Your task to perform on an android device: turn smart compose on in the gmail app Image 0: 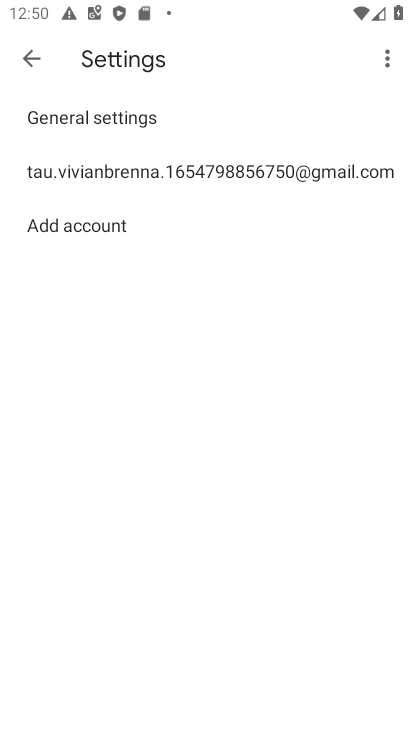
Step 0: press home button
Your task to perform on an android device: turn smart compose on in the gmail app Image 1: 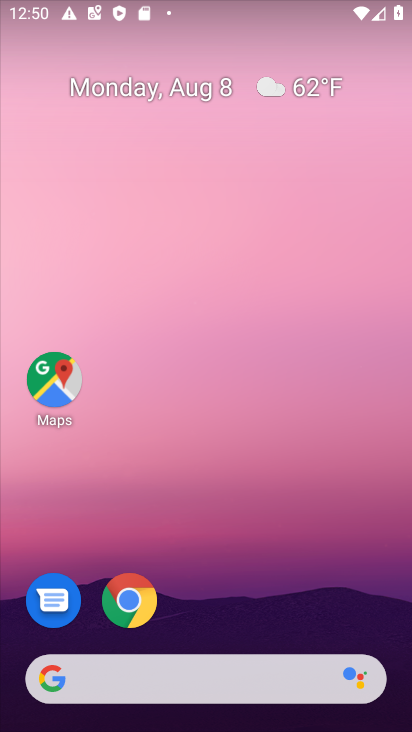
Step 1: drag from (223, 618) to (214, 57)
Your task to perform on an android device: turn smart compose on in the gmail app Image 2: 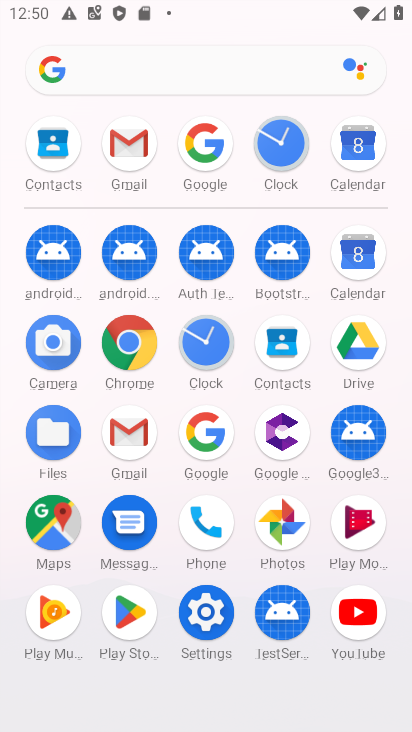
Step 2: click (127, 171)
Your task to perform on an android device: turn smart compose on in the gmail app Image 3: 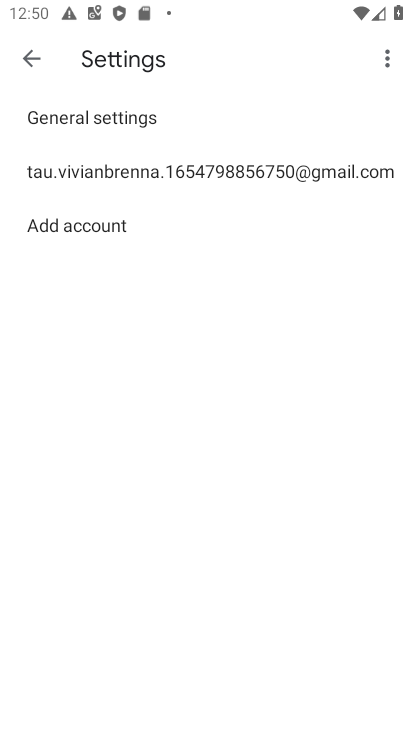
Step 3: click (25, 54)
Your task to perform on an android device: turn smart compose on in the gmail app Image 4: 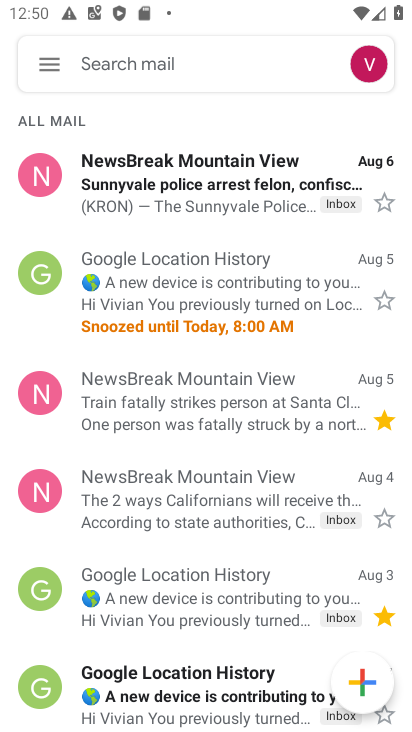
Step 4: click (53, 67)
Your task to perform on an android device: turn smart compose on in the gmail app Image 5: 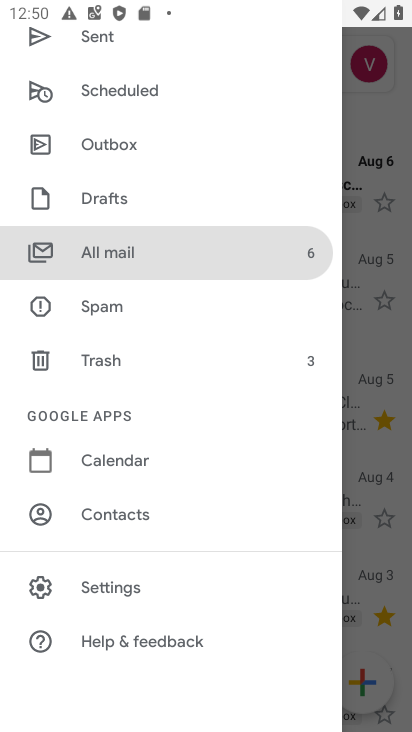
Step 5: click (174, 589)
Your task to perform on an android device: turn smart compose on in the gmail app Image 6: 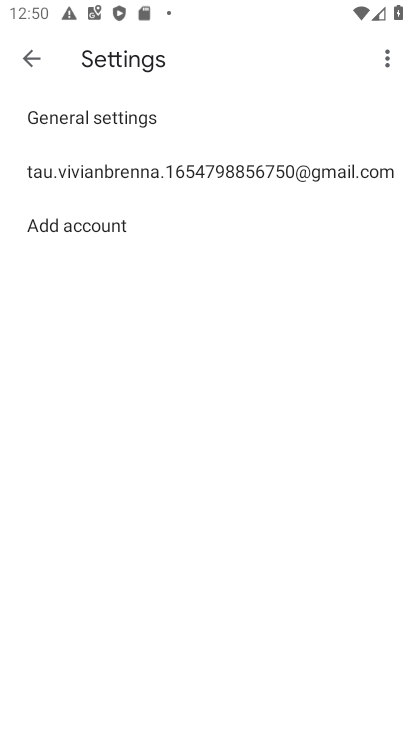
Step 6: click (133, 170)
Your task to perform on an android device: turn smart compose on in the gmail app Image 7: 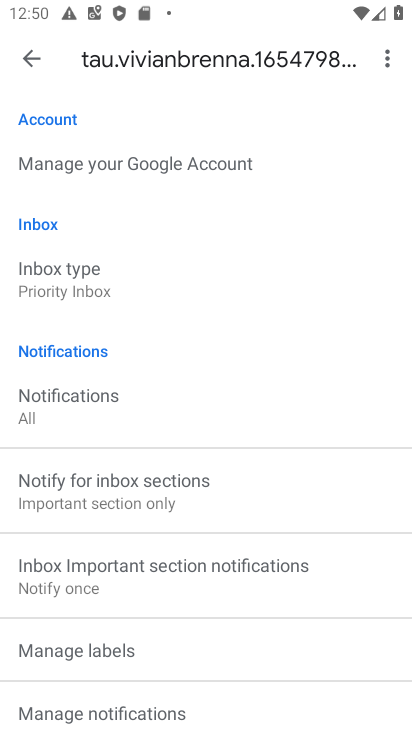
Step 7: task complete